Your task to perform on an android device: Open CNN.com Image 0: 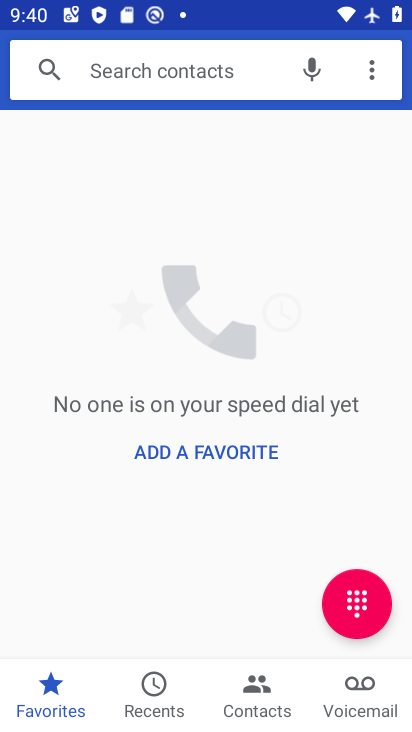
Step 0: press home button
Your task to perform on an android device: Open CNN.com Image 1: 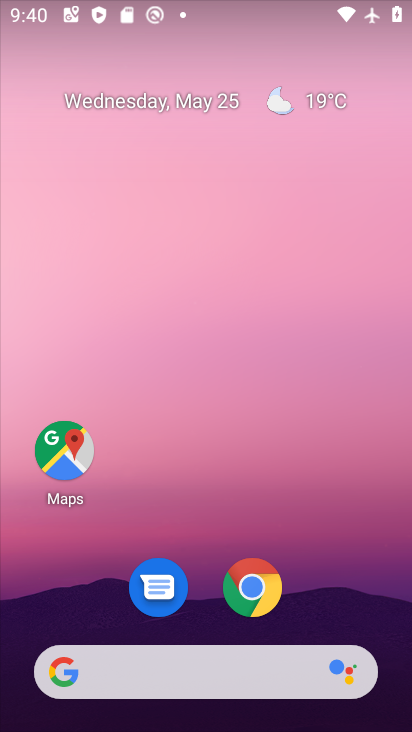
Step 1: click (253, 590)
Your task to perform on an android device: Open CNN.com Image 2: 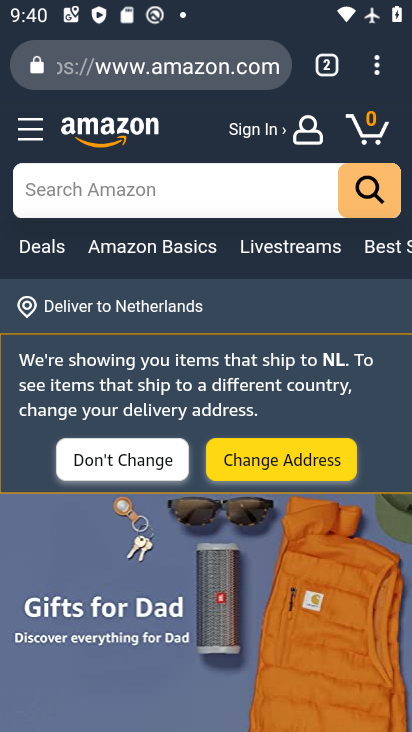
Step 2: click (270, 66)
Your task to perform on an android device: Open CNN.com Image 3: 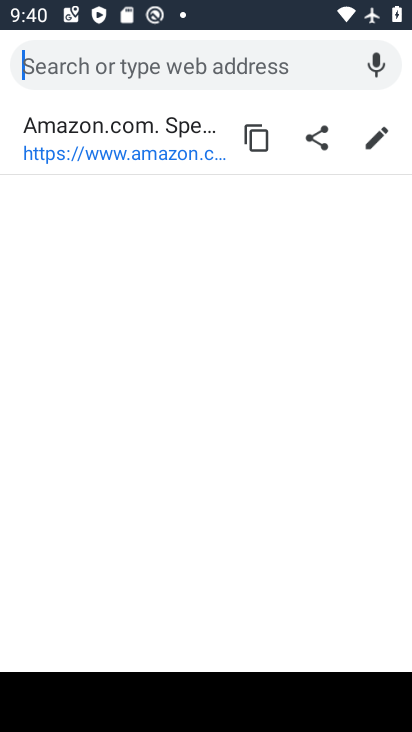
Step 3: type "cnn.com"
Your task to perform on an android device: Open CNN.com Image 4: 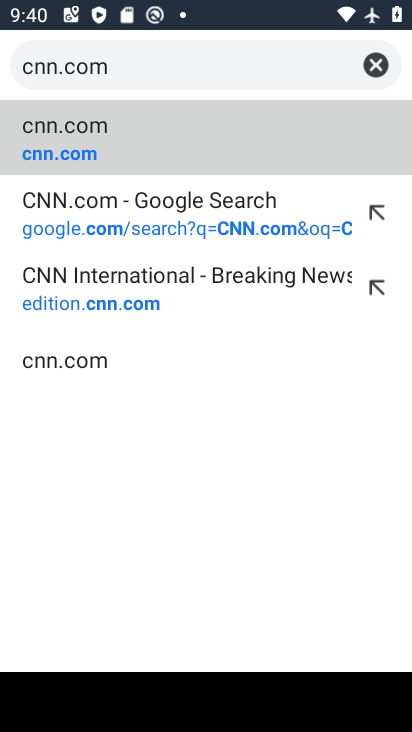
Step 4: click (72, 120)
Your task to perform on an android device: Open CNN.com Image 5: 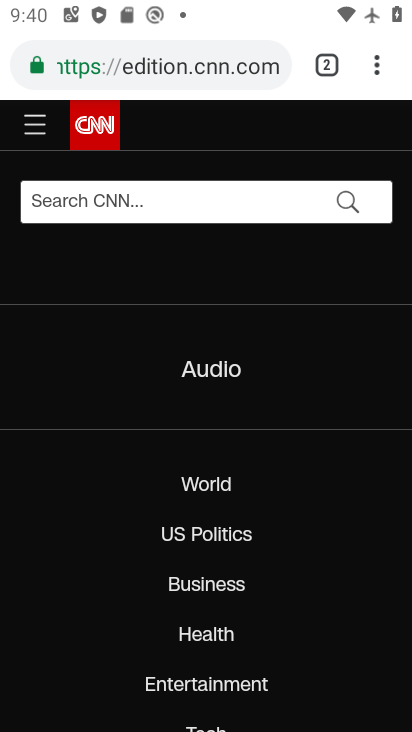
Step 5: task complete